Your task to perform on an android device: open app "DoorDash - Food Delivery" Image 0: 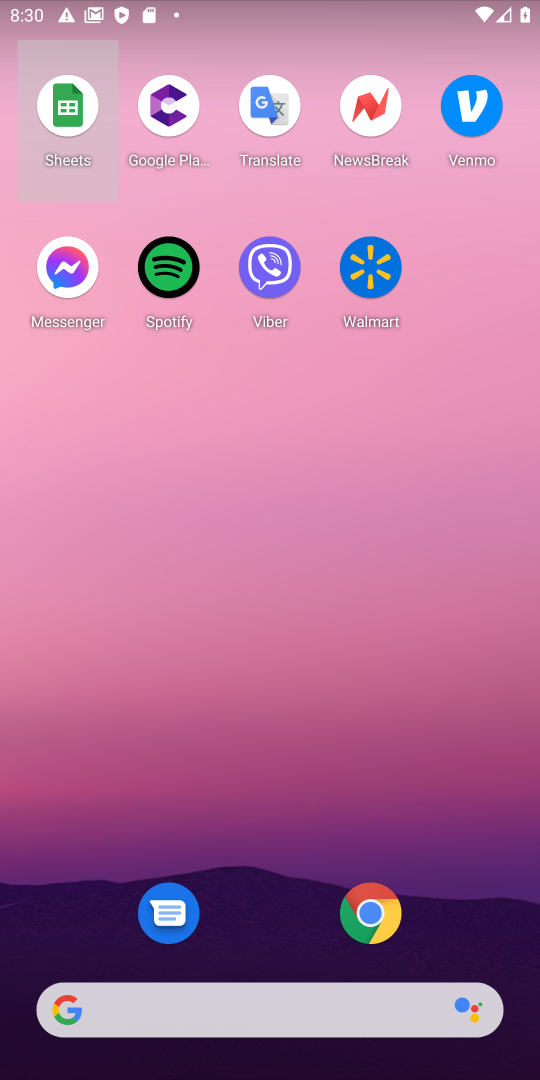
Step 0: drag from (323, 1014) to (286, 483)
Your task to perform on an android device: open app "DoorDash - Food Delivery" Image 1: 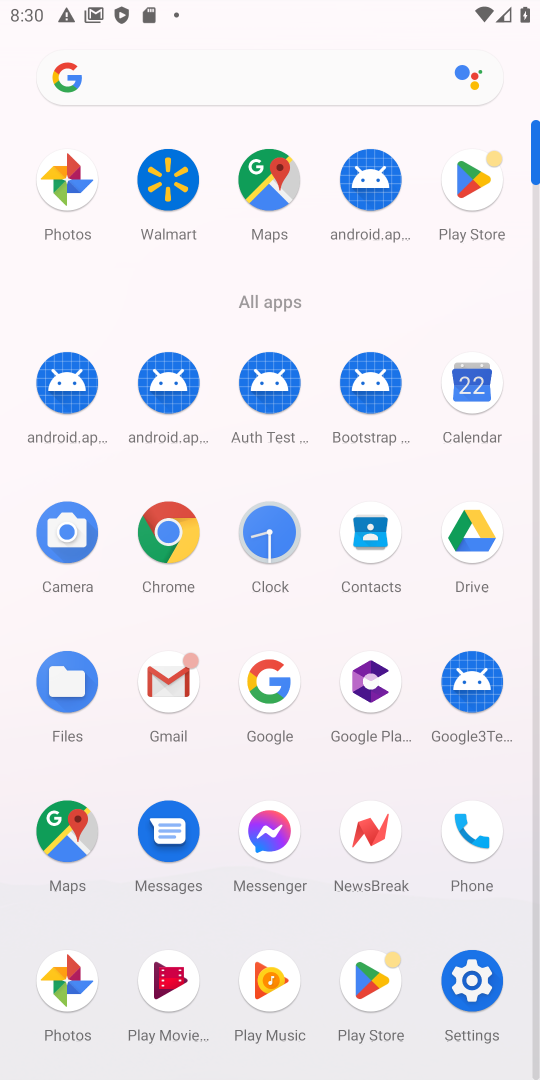
Step 1: click (466, 182)
Your task to perform on an android device: open app "DoorDash - Food Delivery" Image 2: 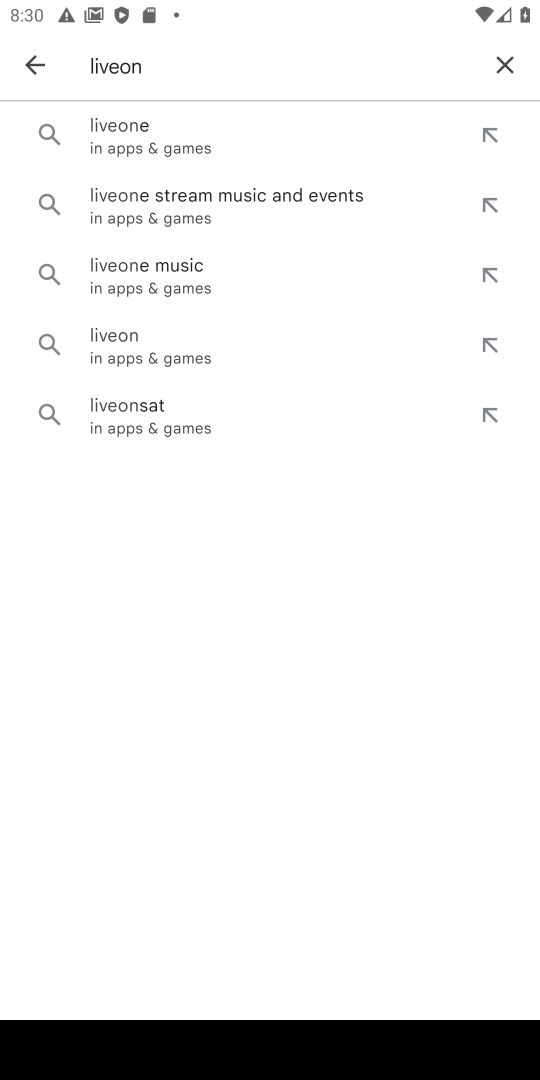
Step 2: click (504, 59)
Your task to perform on an android device: open app "DoorDash - Food Delivery" Image 3: 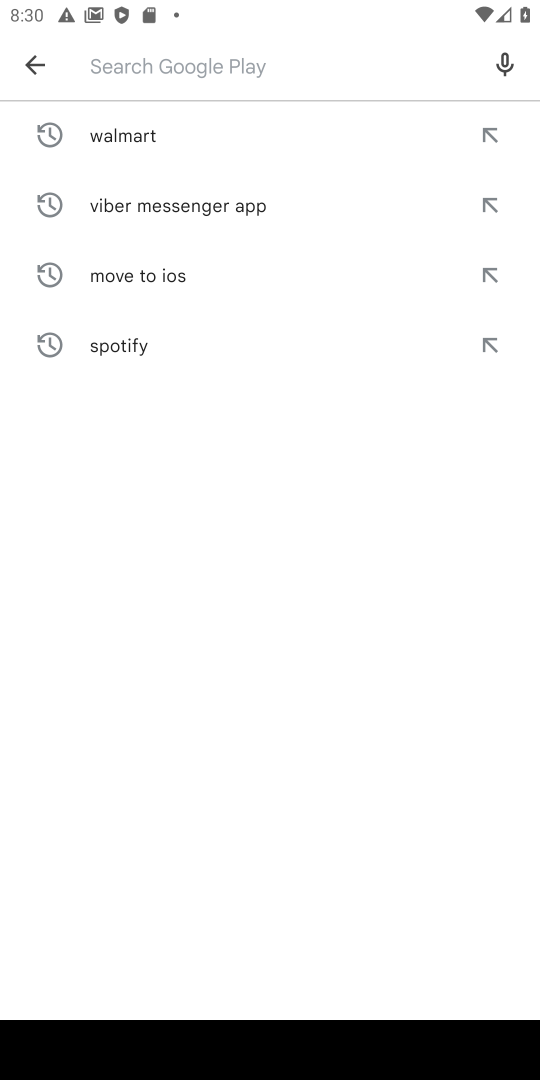
Step 3: type "doordash"
Your task to perform on an android device: open app "DoorDash - Food Delivery" Image 4: 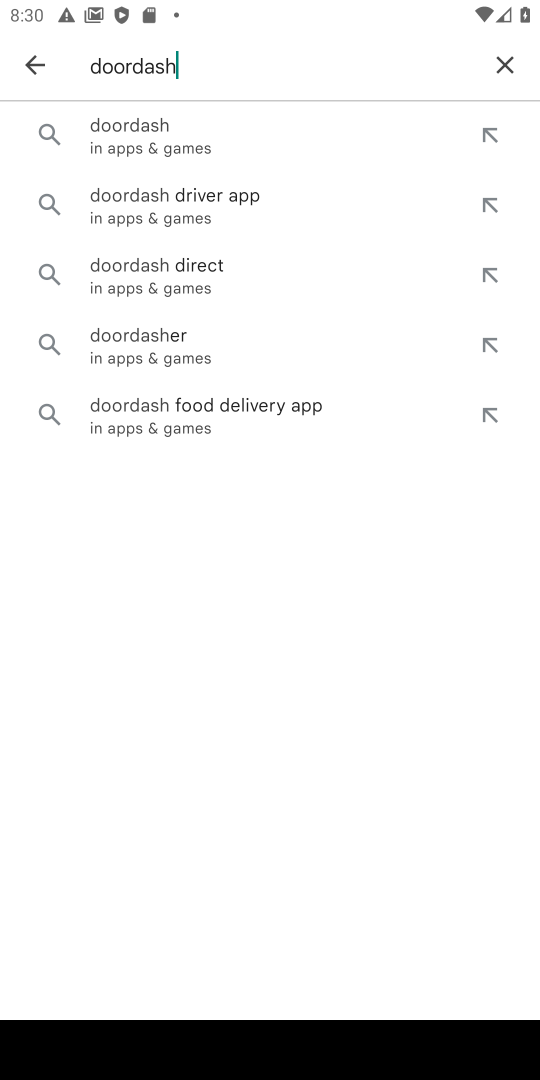
Step 4: click (213, 421)
Your task to perform on an android device: open app "DoorDash - Food Delivery" Image 5: 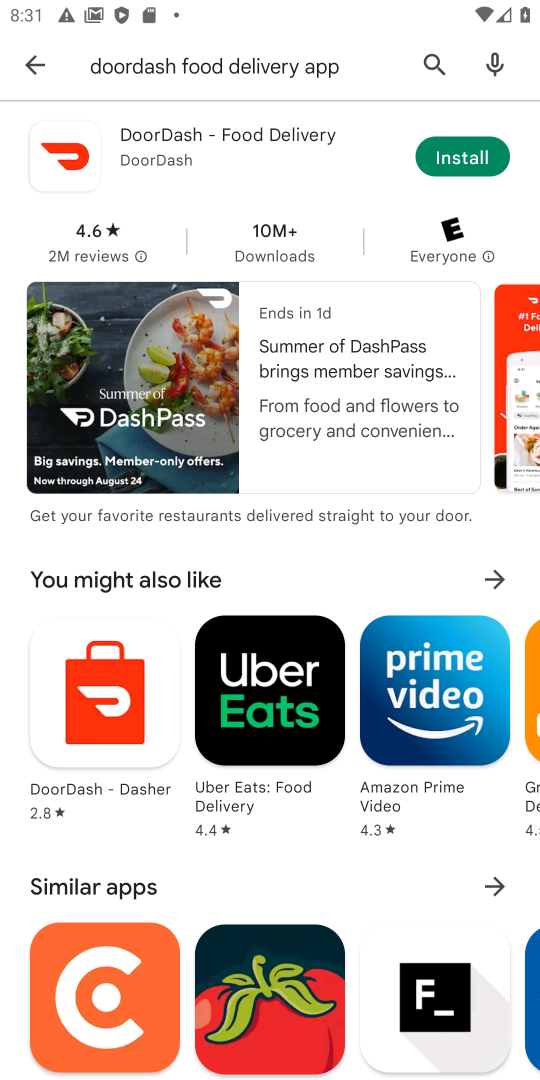
Step 5: task complete